Your task to perform on an android device: Add "bose soundlink mini" to the cart on walmart Image 0: 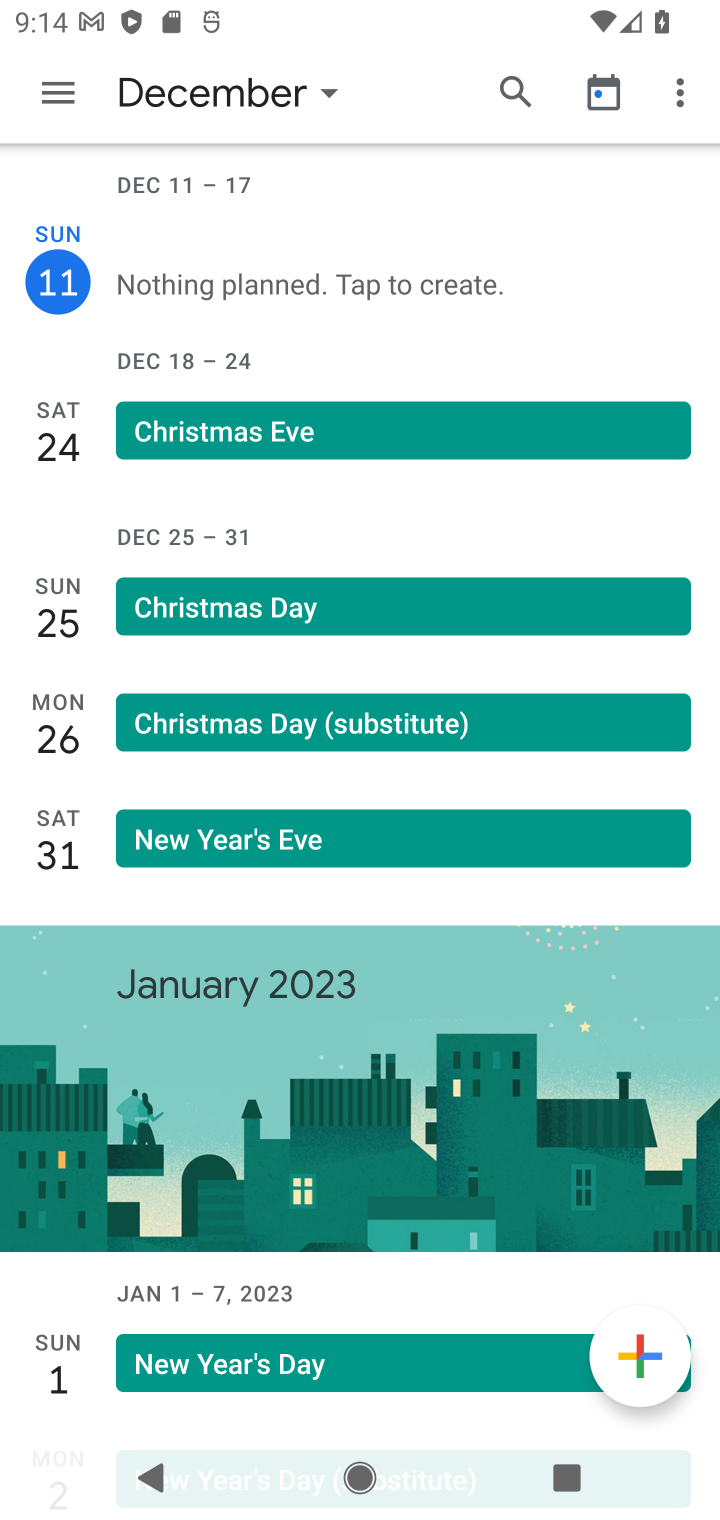
Step 0: press home button
Your task to perform on an android device: Add "bose soundlink mini" to the cart on walmart Image 1: 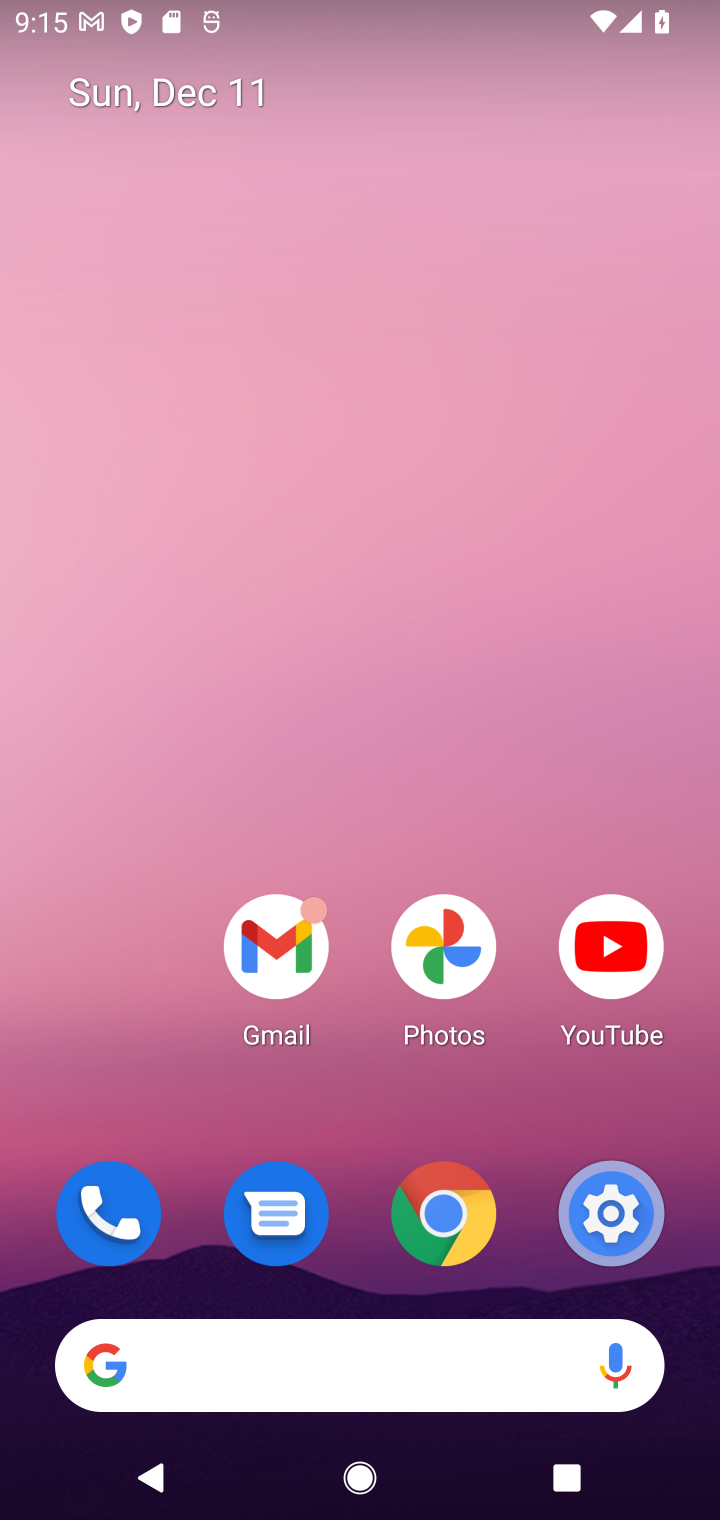
Step 1: click (407, 1351)
Your task to perform on an android device: Add "bose soundlink mini" to the cart on walmart Image 2: 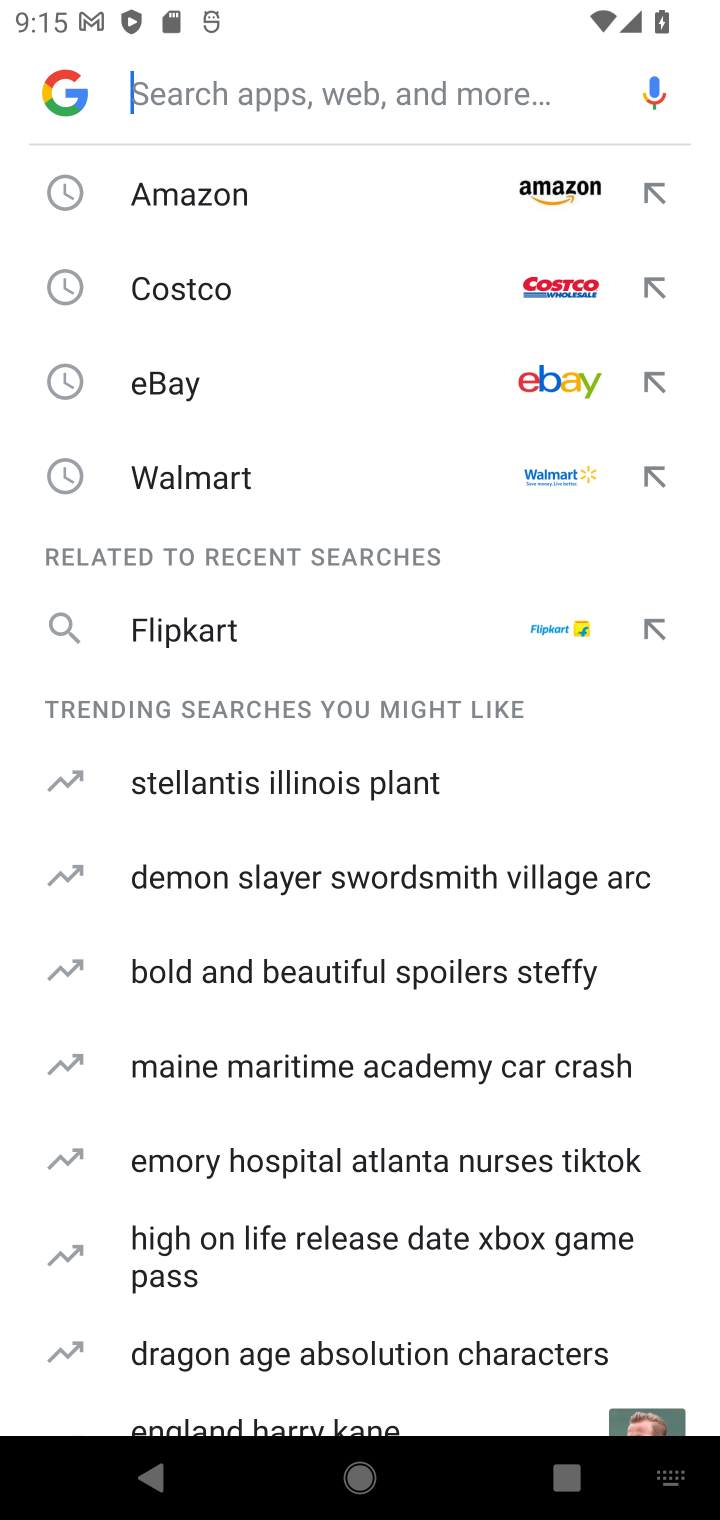
Step 2: click (300, 196)
Your task to perform on an android device: Add "bose soundlink mini" to the cart on walmart Image 3: 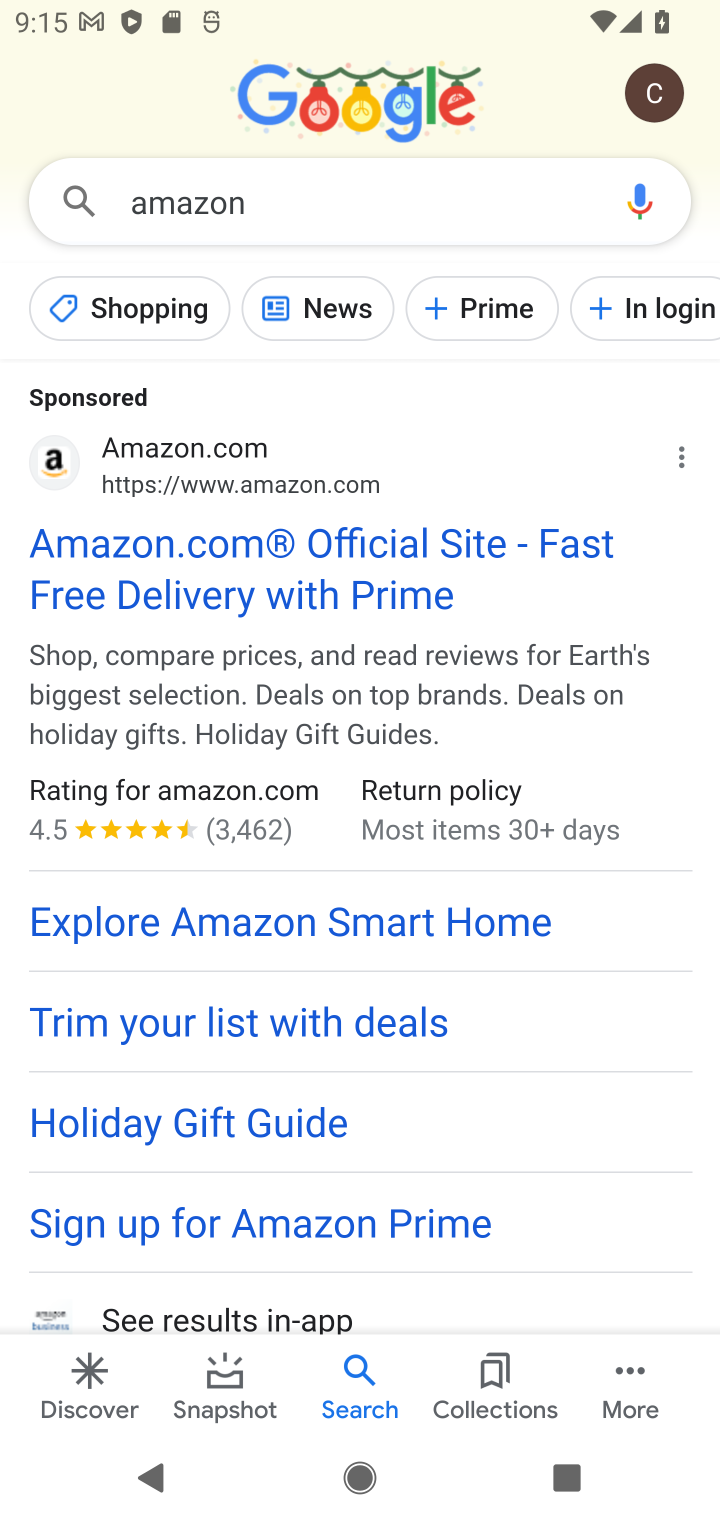
Step 3: click (295, 568)
Your task to perform on an android device: Add "bose soundlink mini" to the cart on walmart Image 4: 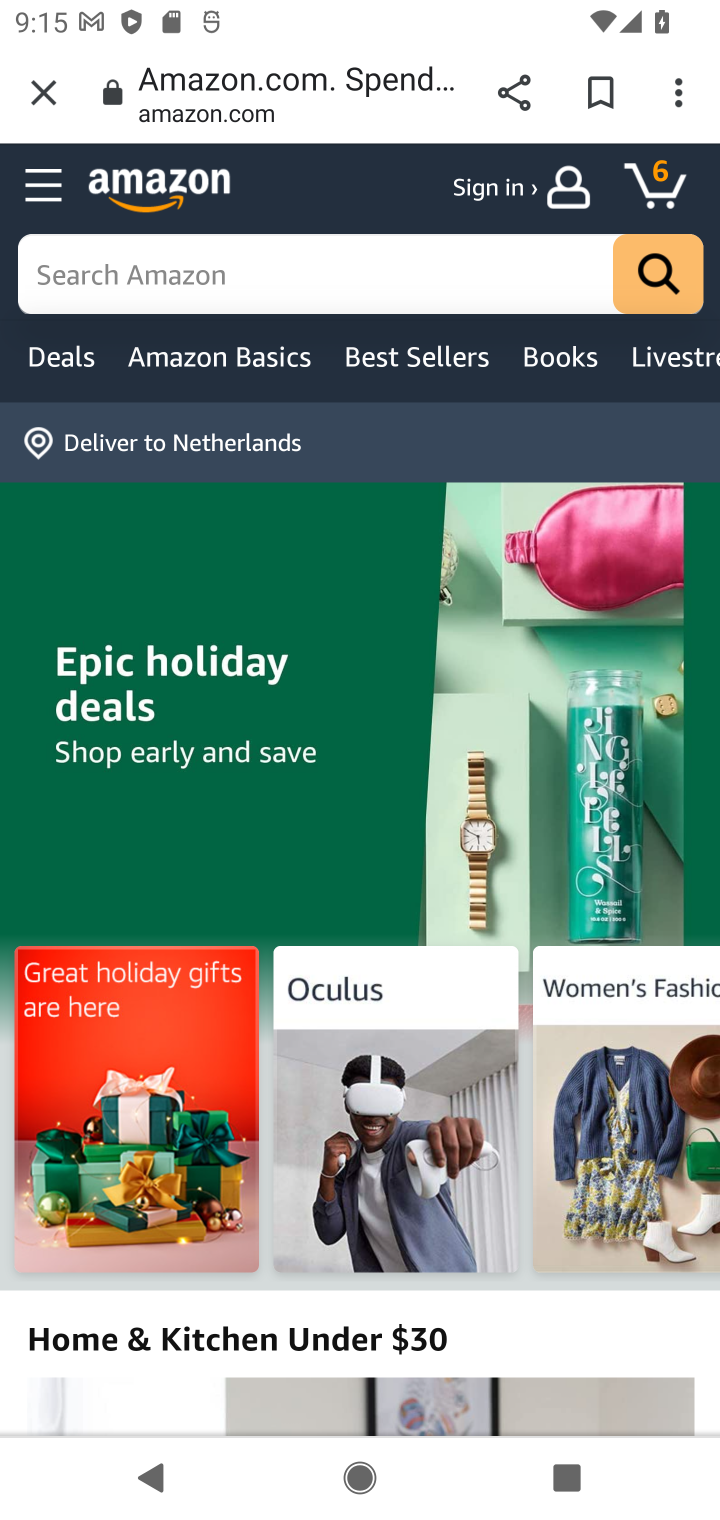
Step 4: click (307, 273)
Your task to perform on an android device: Add "bose soundlink mini" to the cart on walmart Image 5: 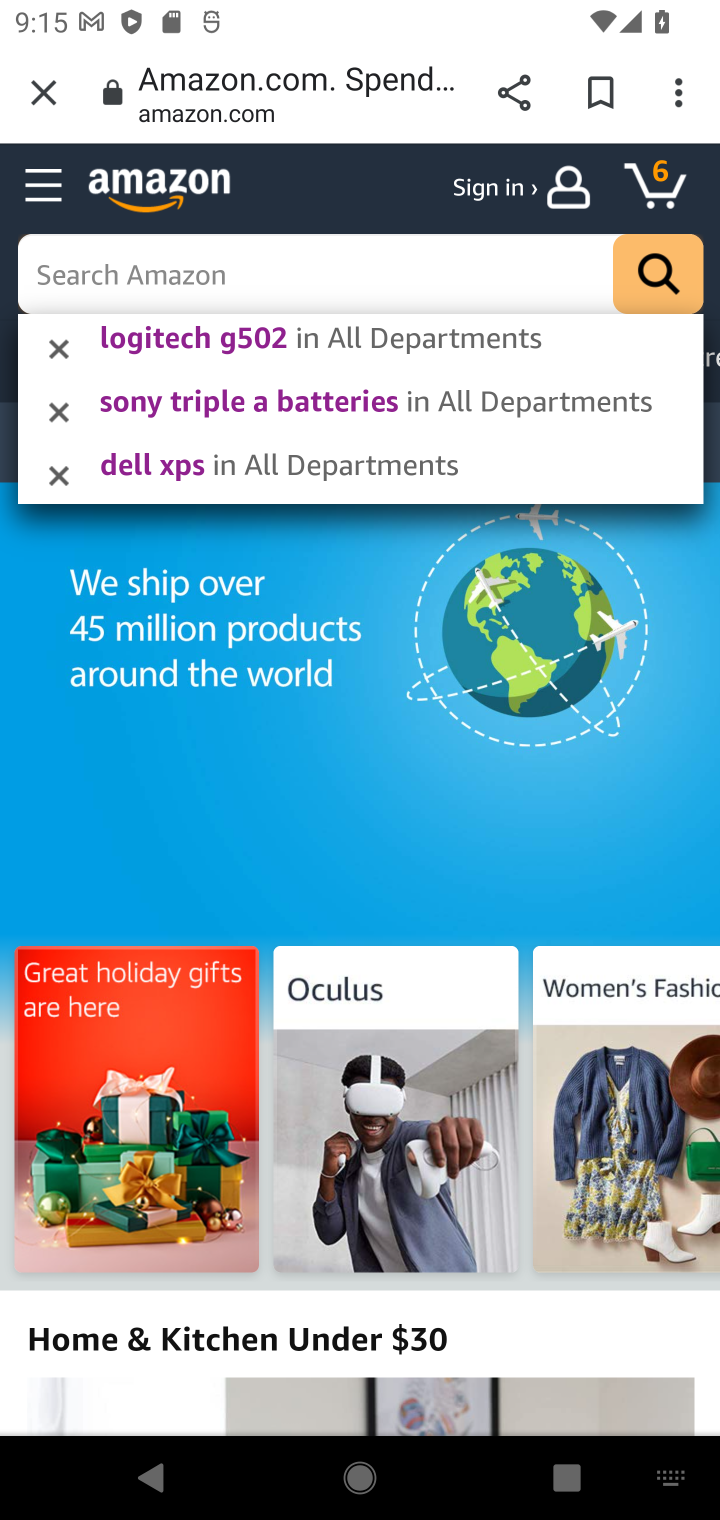
Step 5: type "bose link"
Your task to perform on an android device: Add "bose soundlink mini" to the cart on walmart Image 6: 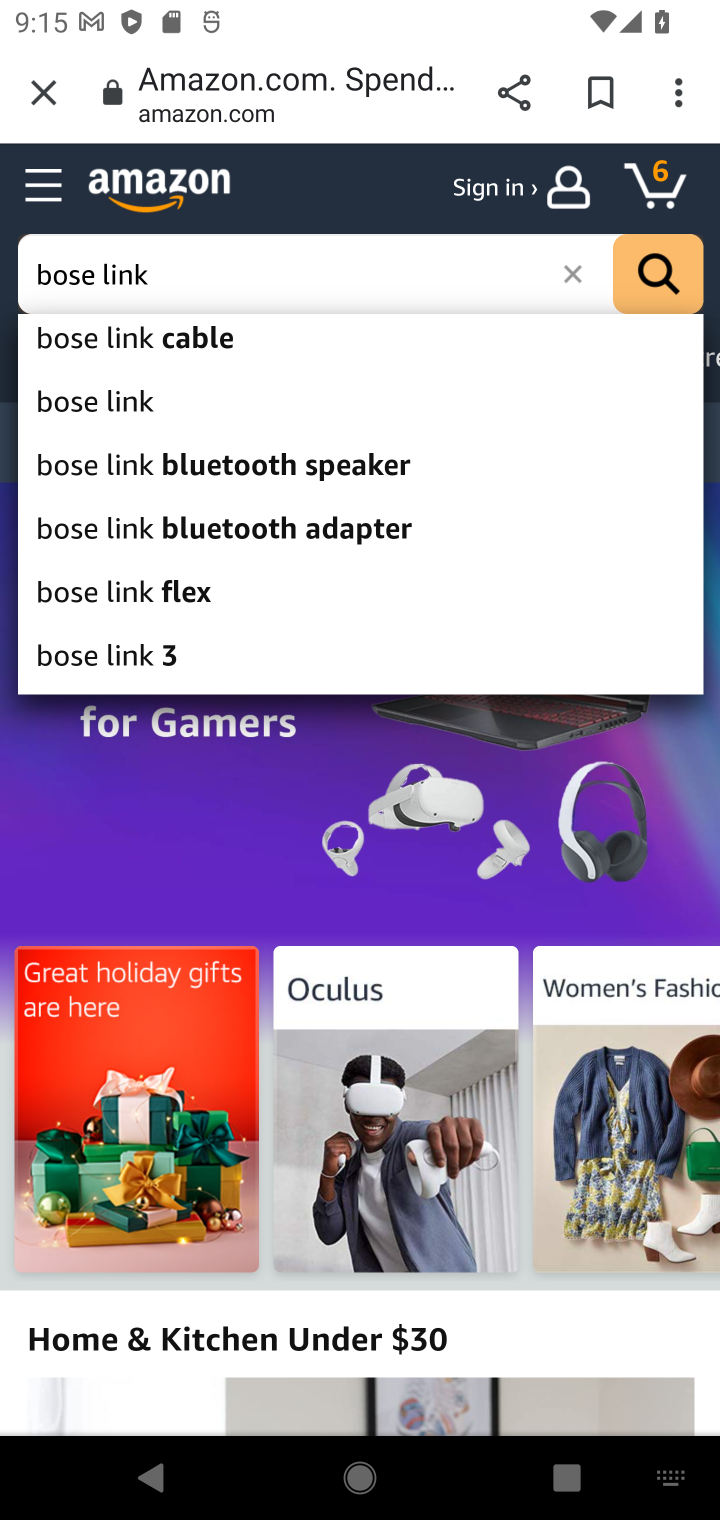
Step 6: click (566, 282)
Your task to perform on an android device: Add "bose soundlink mini" to the cart on walmart Image 7: 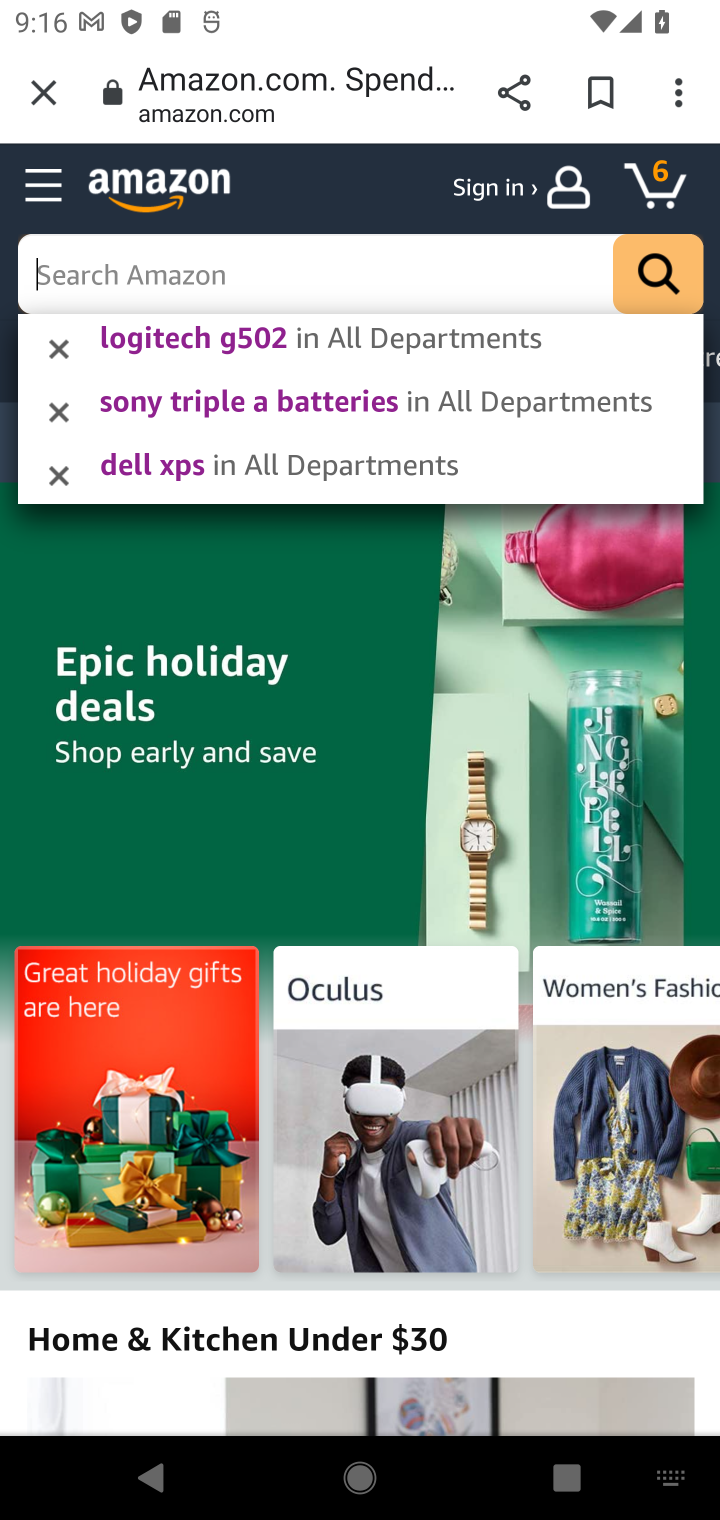
Step 7: type "bose soundlink"
Your task to perform on an android device: Add "bose soundlink mini" to the cart on walmart Image 8: 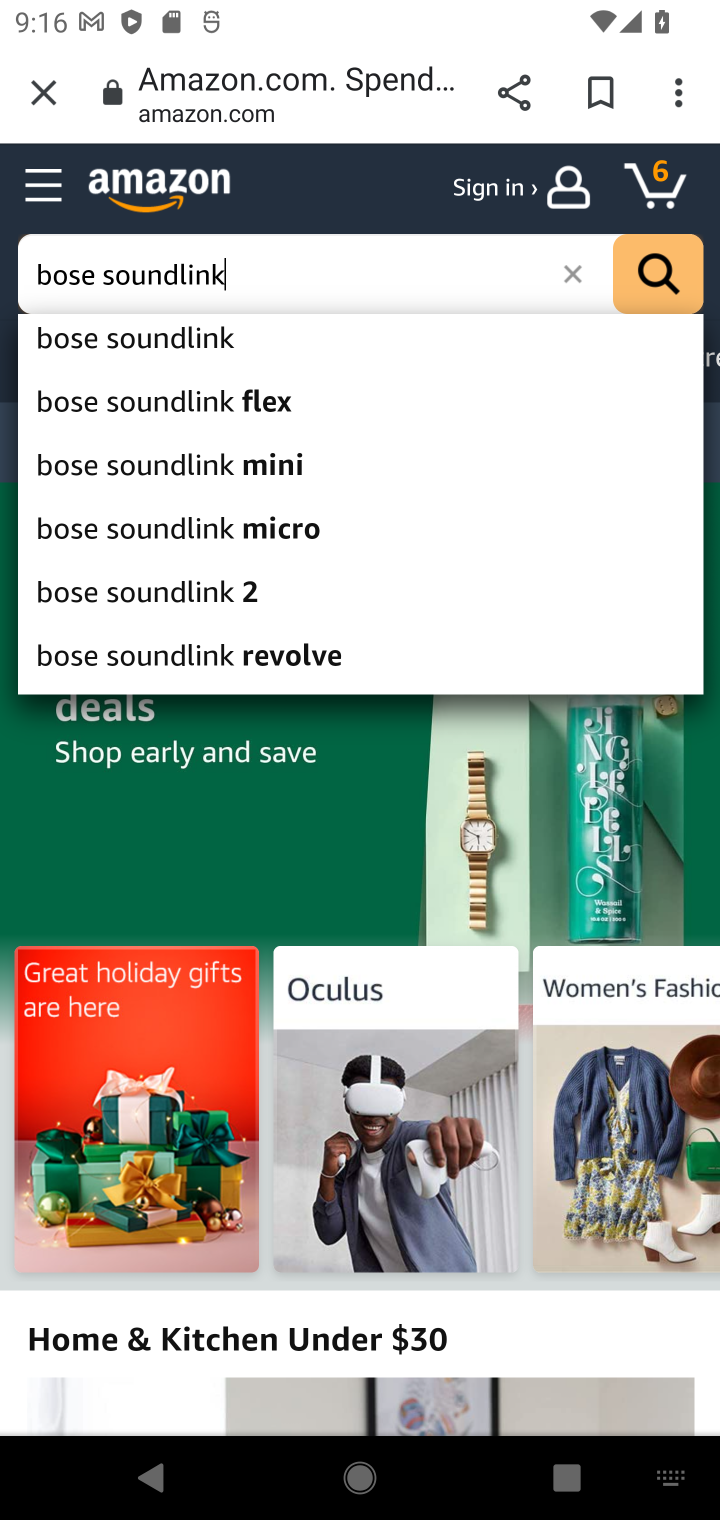
Step 8: click (272, 354)
Your task to perform on an android device: Add "bose soundlink mini" to the cart on walmart Image 9: 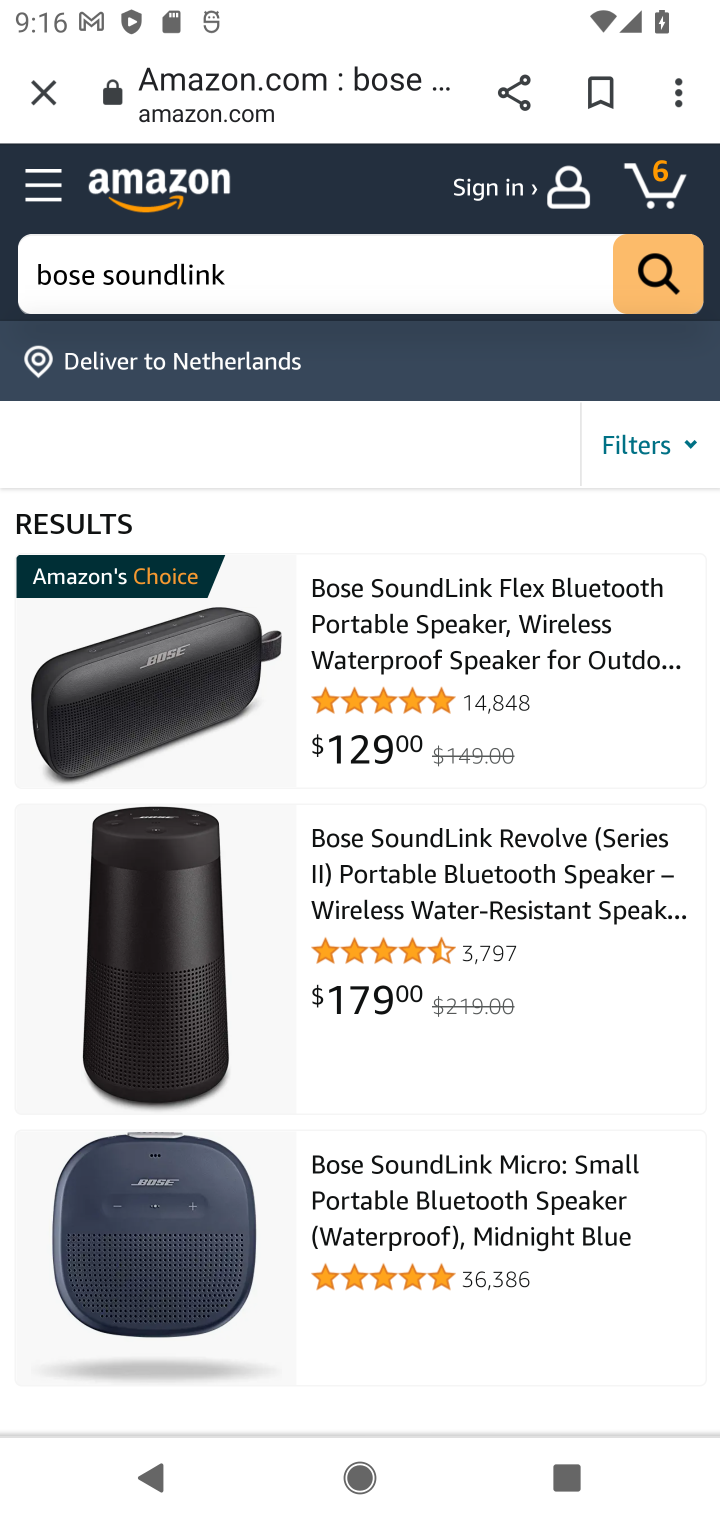
Step 9: click (354, 614)
Your task to perform on an android device: Add "bose soundlink mini" to the cart on walmart Image 10: 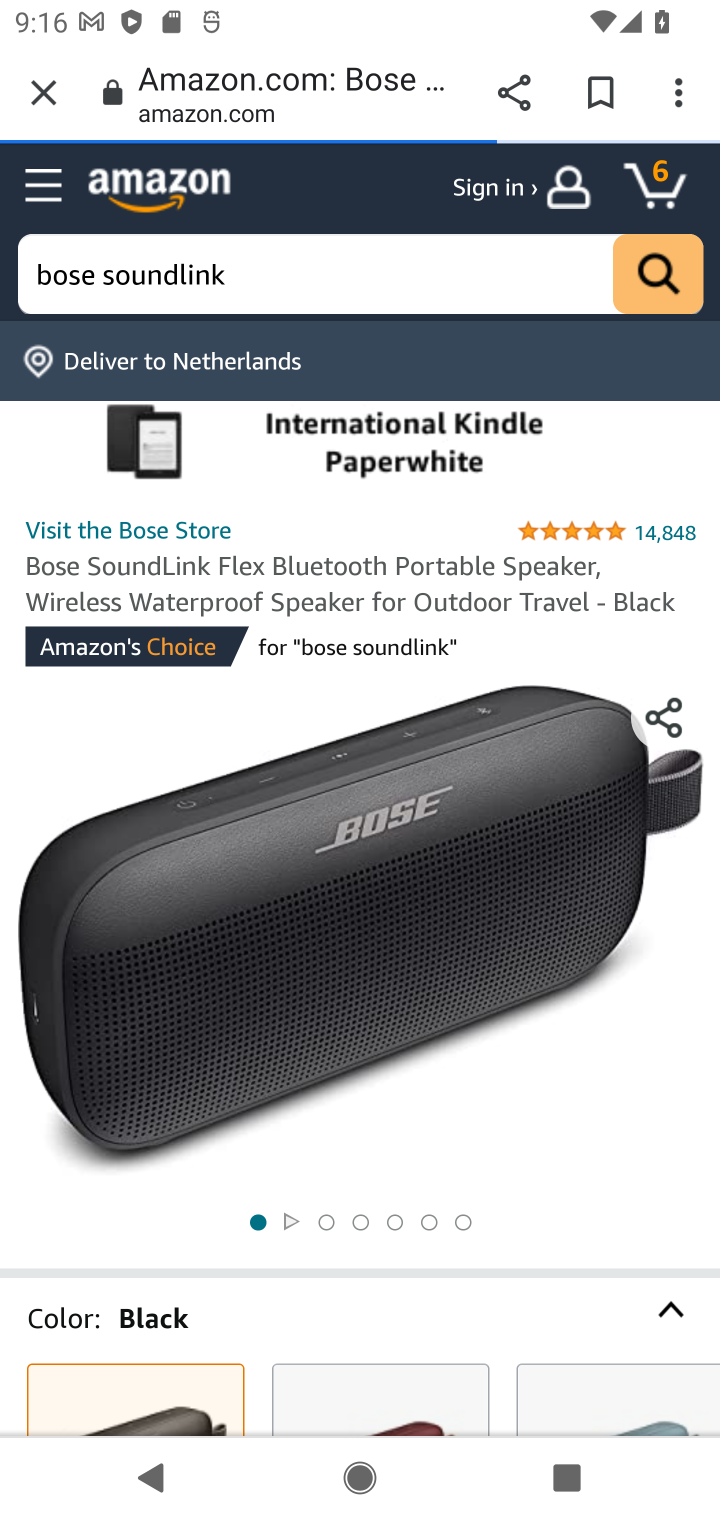
Step 10: drag from (340, 1058) to (295, 402)
Your task to perform on an android device: Add "bose soundlink mini" to the cart on walmart Image 11: 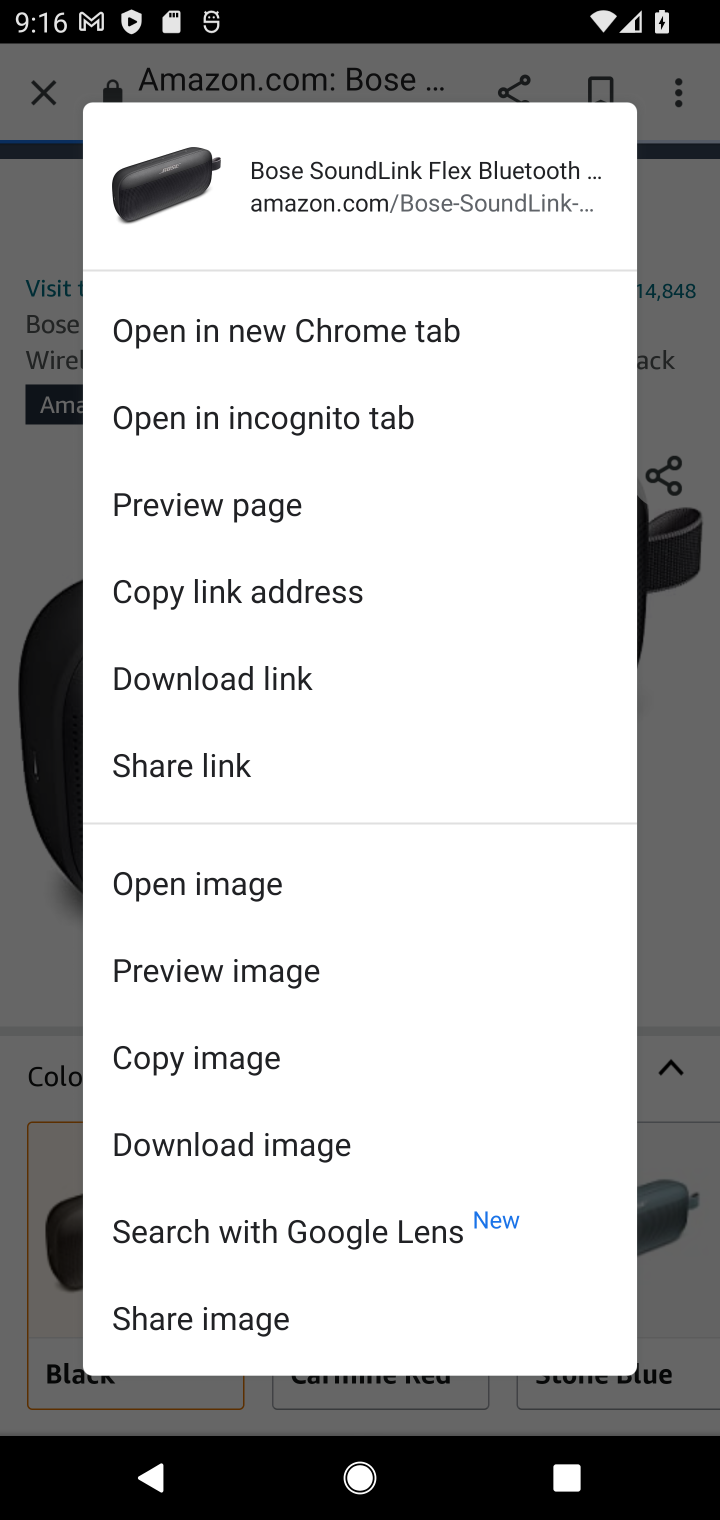
Step 11: click (685, 847)
Your task to perform on an android device: Add "bose soundlink mini" to the cart on walmart Image 12: 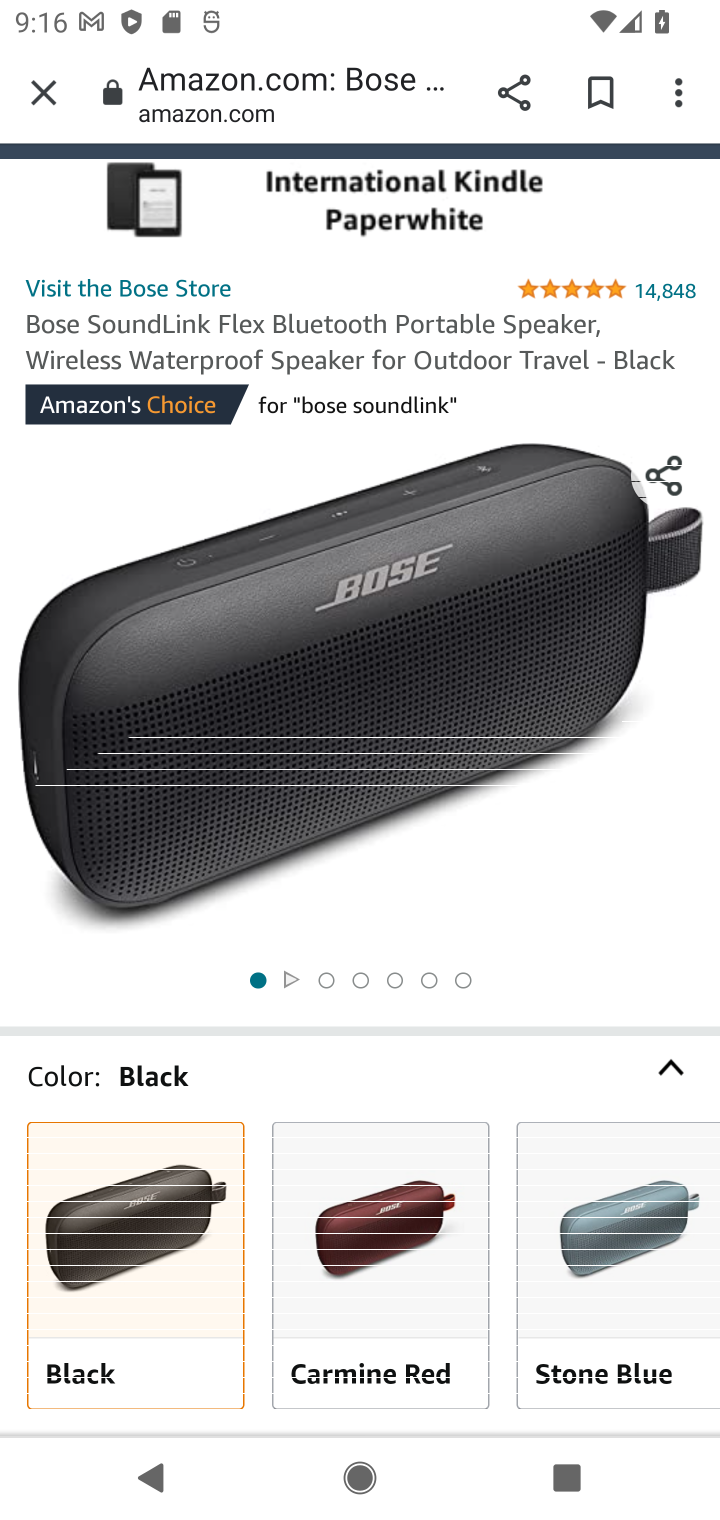
Step 12: task complete